Your task to perform on an android device: change the clock style Image 0: 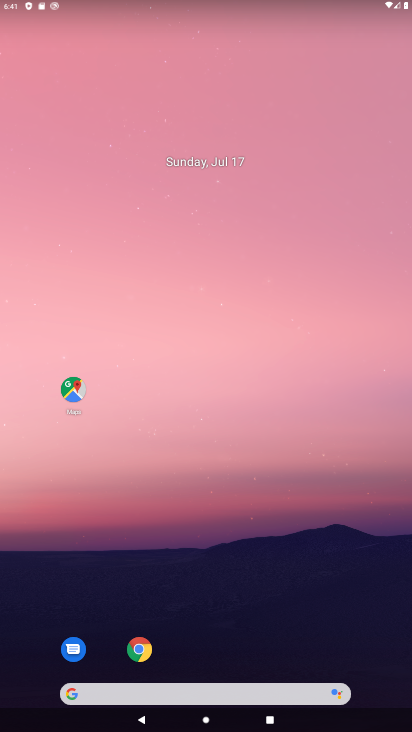
Step 0: drag from (211, 585) to (206, 239)
Your task to perform on an android device: change the clock style Image 1: 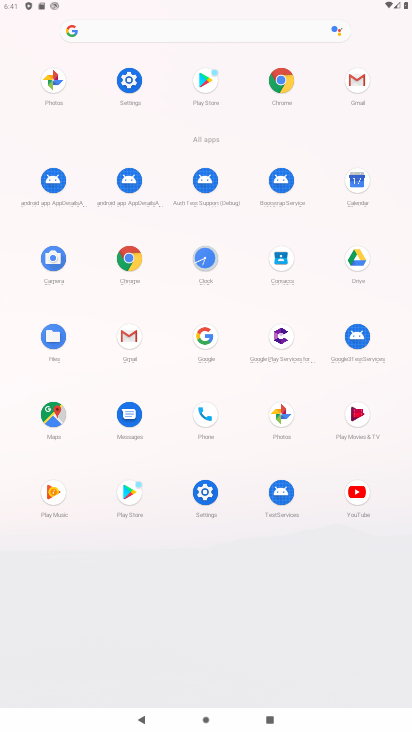
Step 1: click (204, 261)
Your task to perform on an android device: change the clock style Image 2: 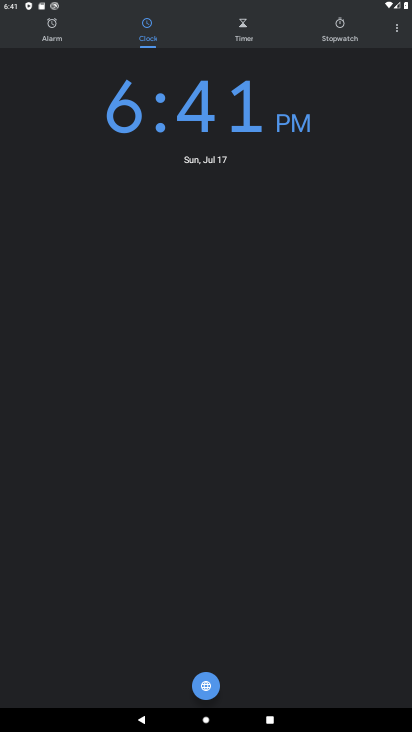
Step 2: click (397, 33)
Your task to perform on an android device: change the clock style Image 3: 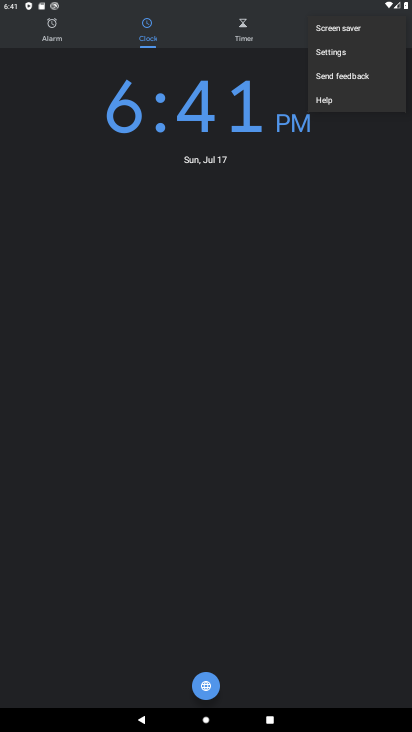
Step 3: click (326, 56)
Your task to perform on an android device: change the clock style Image 4: 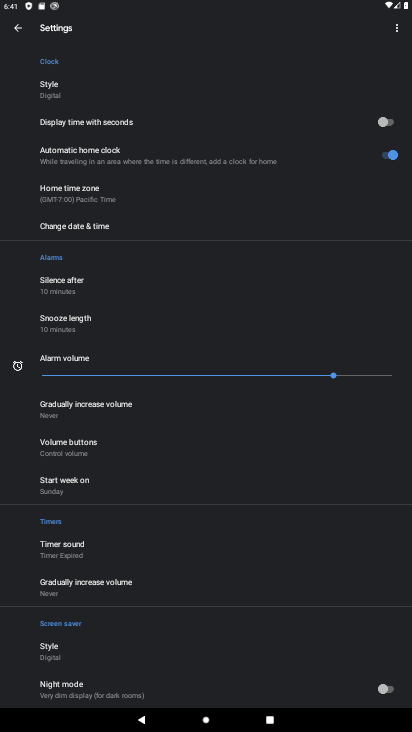
Step 4: click (48, 88)
Your task to perform on an android device: change the clock style Image 5: 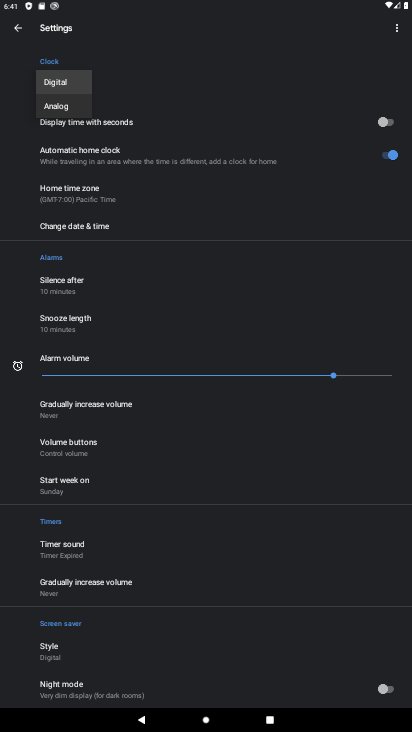
Step 5: click (56, 104)
Your task to perform on an android device: change the clock style Image 6: 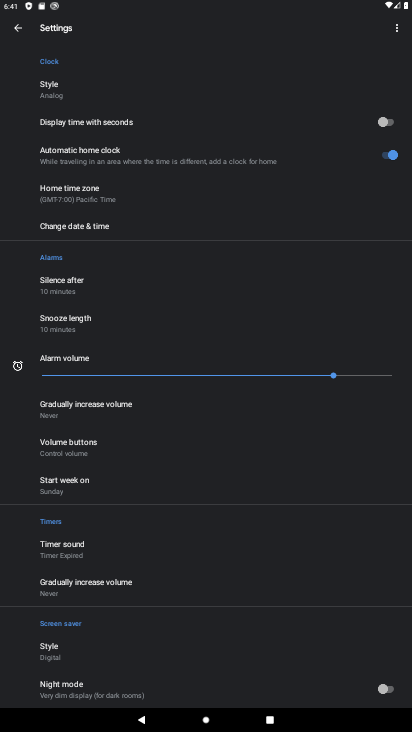
Step 6: task complete